Your task to perform on an android device: turn notification dots off Image 0: 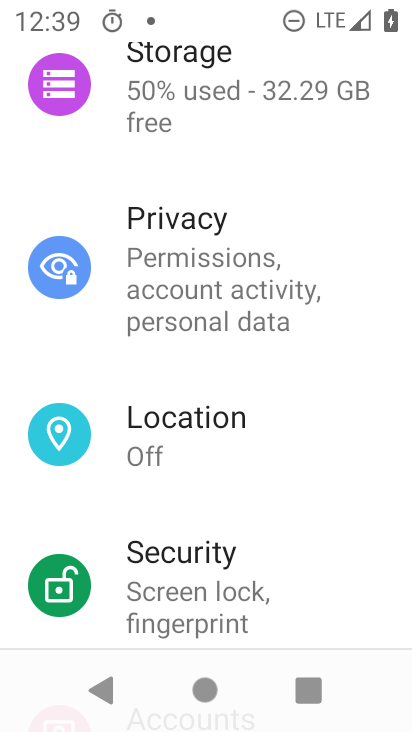
Step 0: drag from (279, 696) to (334, 724)
Your task to perform on an android device: turn notification dots off Image 1: 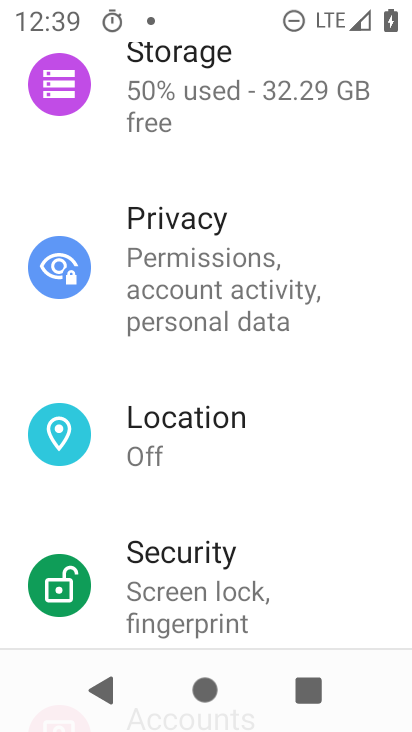
Step 1: drag from (212, 502) to (232, 150)
Your task to perform on an android device: turn notification dots off Image 2: 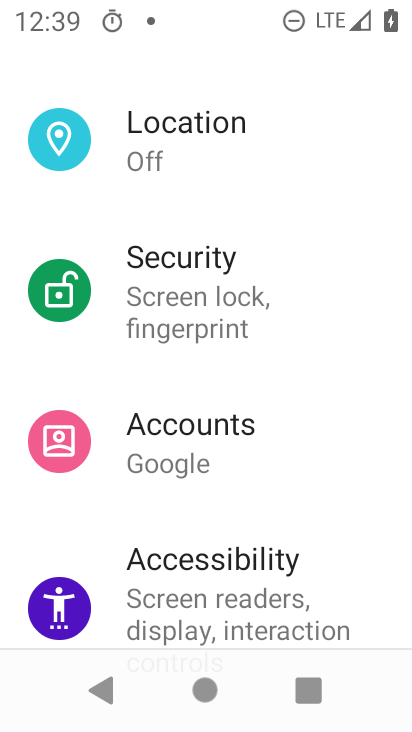
Step 2: drag from (237, 114) to (342, 727)
Your task to perform on an android device: turn notification dots off Image 3: 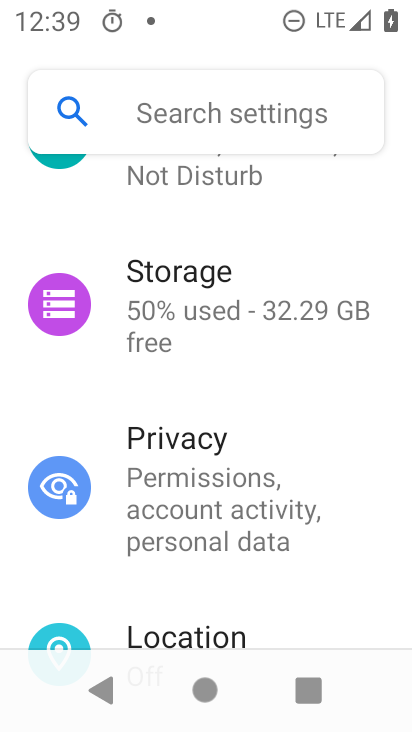
Step 3: drag from (241, 241) to (358, 728)
Your task to perform on an android device: turn notification dots off Image 4: 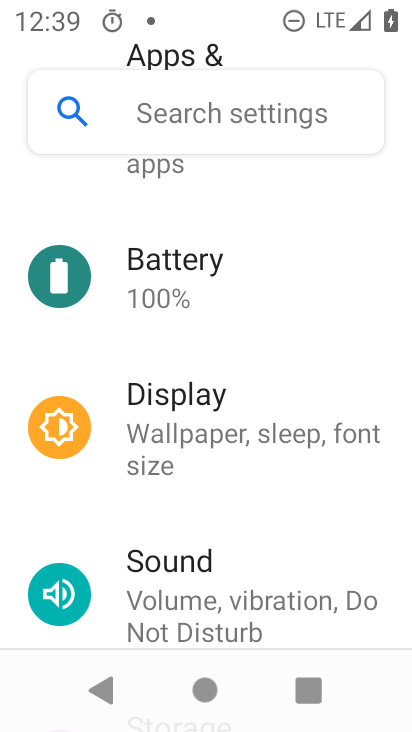
Step 4: drag from (250, 294) to (384, 731)
Your task to perform on an android device: turn notification dots off Image 5: 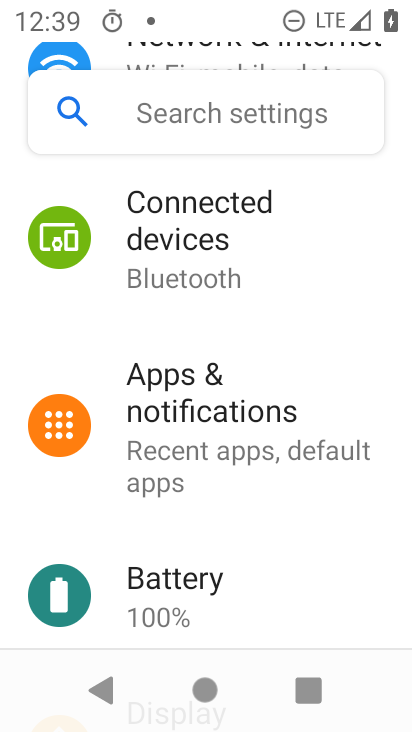
Step 5: click (199, 400)
Your task to perform on an android device: turn notification dots off Image 6: 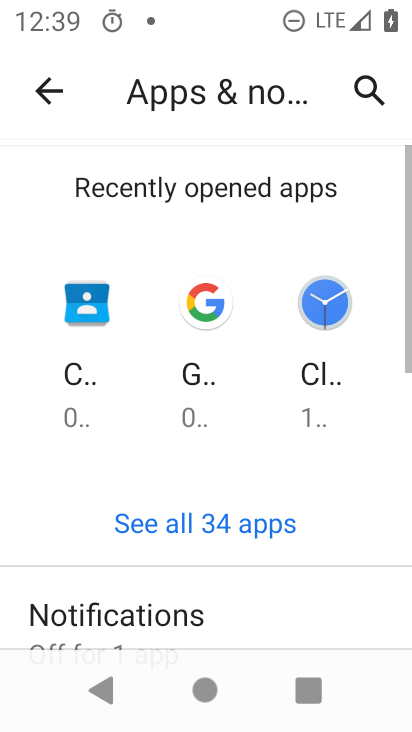
Step 6: drag from (195, 584) to (211, 219)
Your task to perform on an android device: turn notification dots off Image 7: 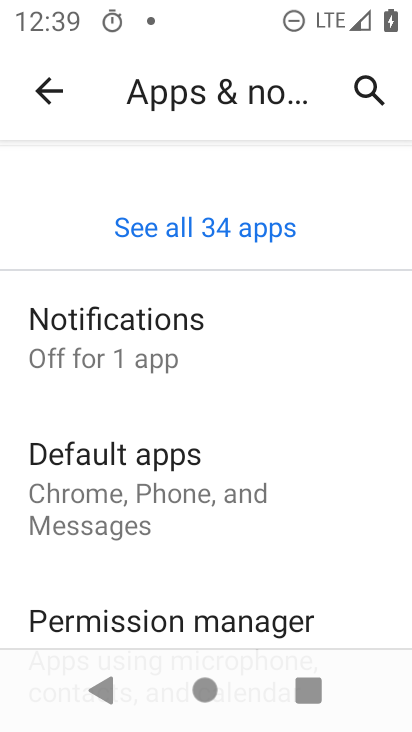
Step 7: click (173, 333)
Your task to perform on an android device: turn notification dots off Image 8: 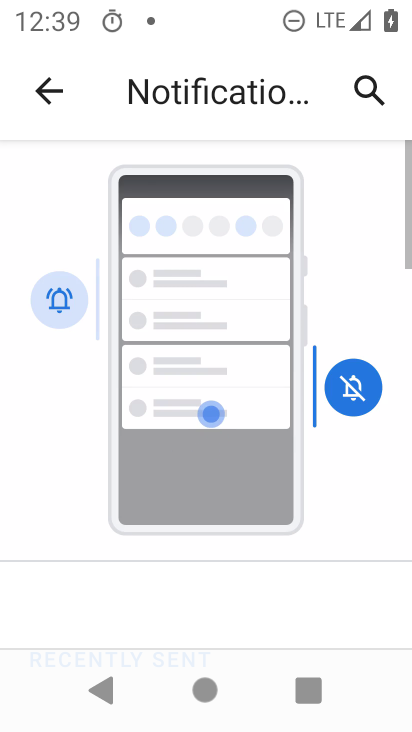
Step 8: drag from (278, 547) to (268, 232)
Your task to perform on an android device: turn notification dots off Image 9: 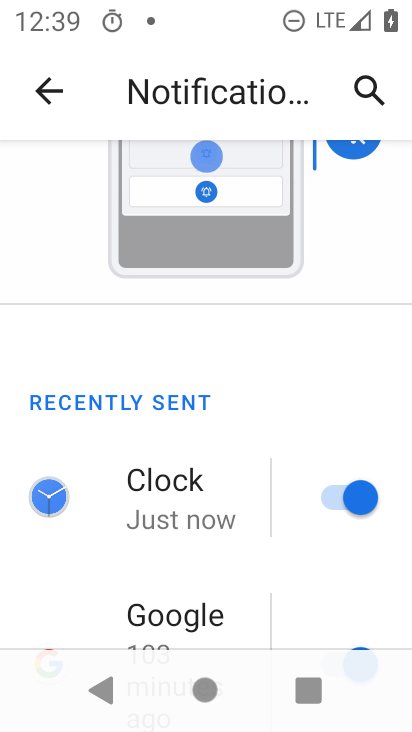
Step 9: drag from (262, 564) to (305, 214)
Your task to perform on an android device: turn notification dots off Image 10: 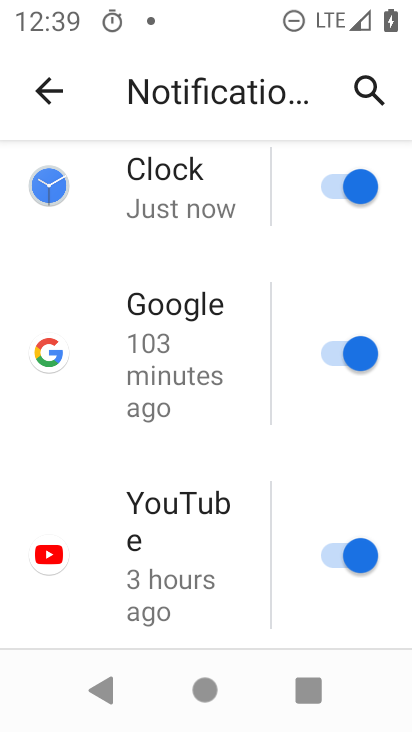
Step 10: drag from (290, 574) to (294, 177)
Your task to perform on an android device: turn notification dots off Image 11: 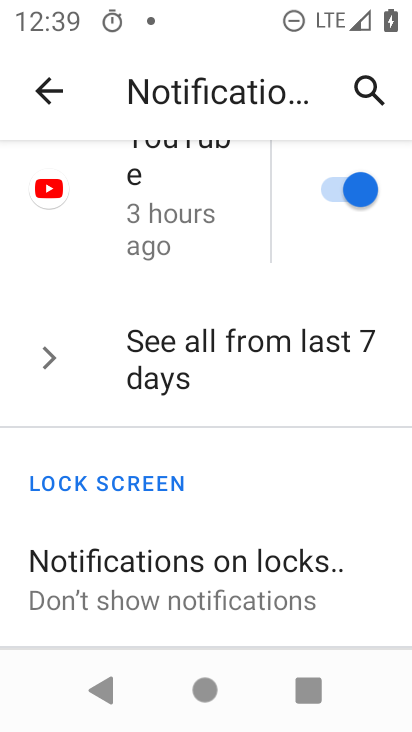
Step 11: drag from (204, 580) to (220, 251)
Your task to perform on an android device: turn notification dots off Image 12: 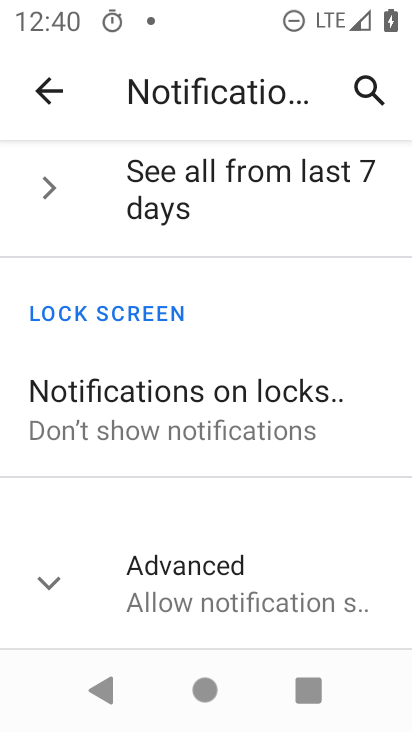
Step 12: click (179, 581)
Your task to perform on an android device: turn notification dots off Image 13: 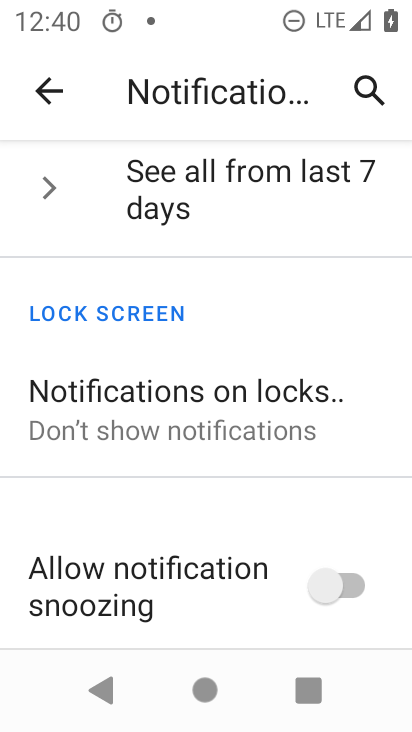
Step 13: drag from (210, 550) to (270, 222)
Your task to perform on an android device: turn notification dots off Image 14: 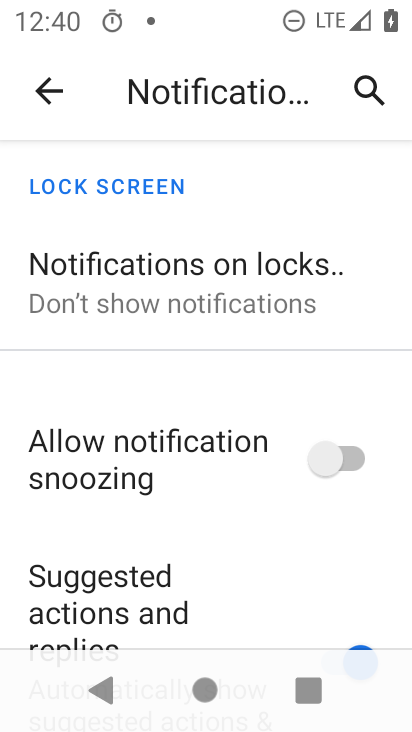
Step 14: drag from (255, 529) to (274, 156)
Your task to perform on an android device: turn notification dots off Image 15: 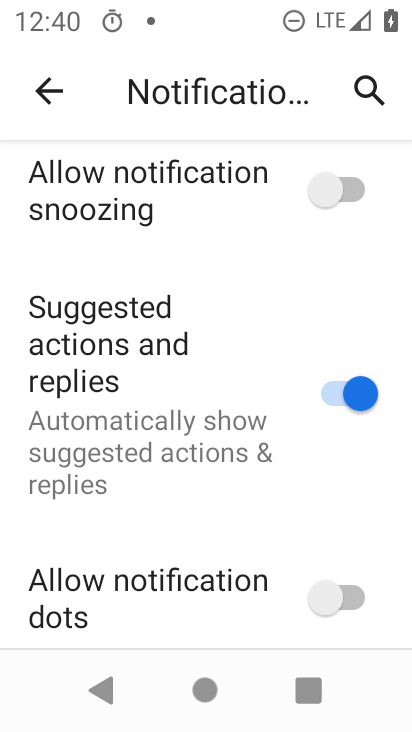
Step 15: click (304, 588)
Your task to perform on an android device: turn notification dots off Image 16: 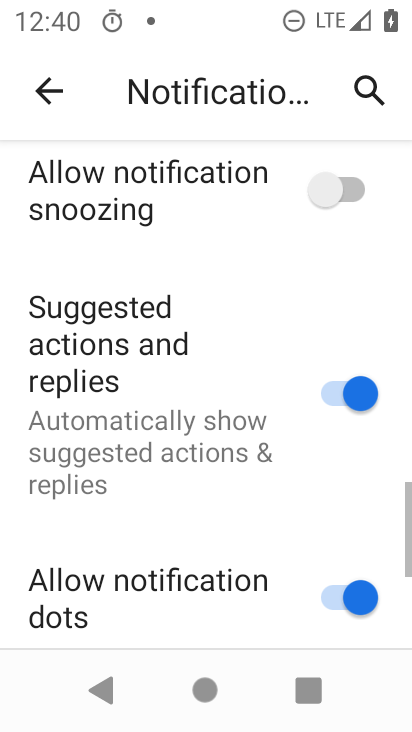
Step 16: click (308, 579)
Your task to perform on an android device: turn notification dots off Image 17: 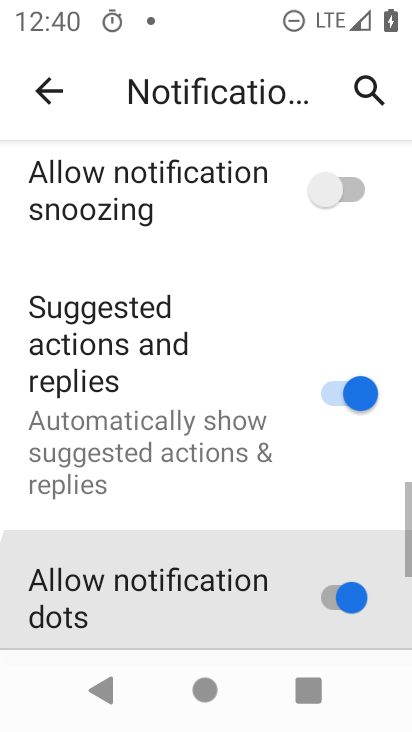
Step 17: task complete